Your task to perform on an android device: install app "DoorDash - Dasher" Image 0: 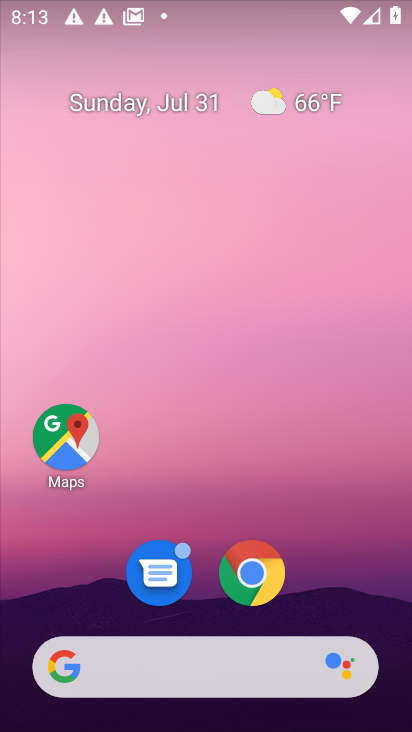
Step 0: drag from (217, 408) to (228, 6)
Your task to perform on an android device: install app "DoorDash - Dasher" Image 1: 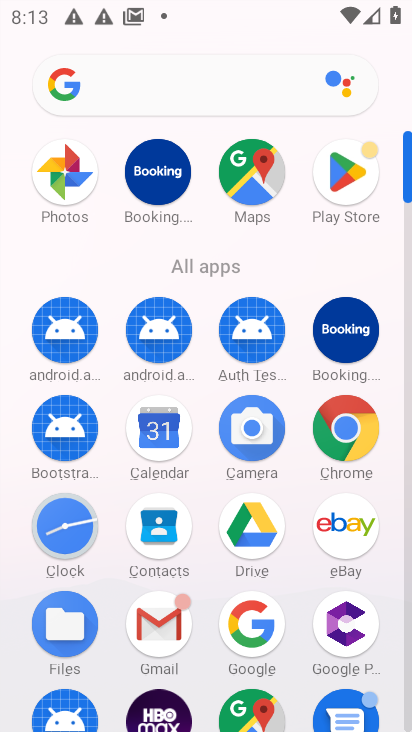
Step 1: click (360, 192)
Your task to perform on an android device: install app "DoorDash - Dasher" Image 2: 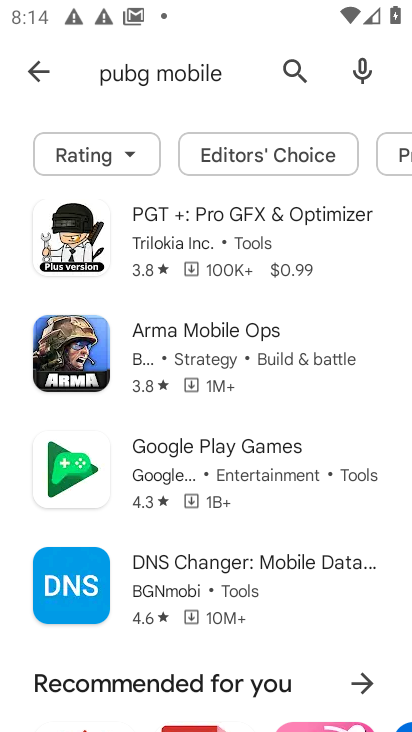
Step 2: click (163, 75)
Your task to perform on an android device: install app "DoorDash - Dasher" Image 3: 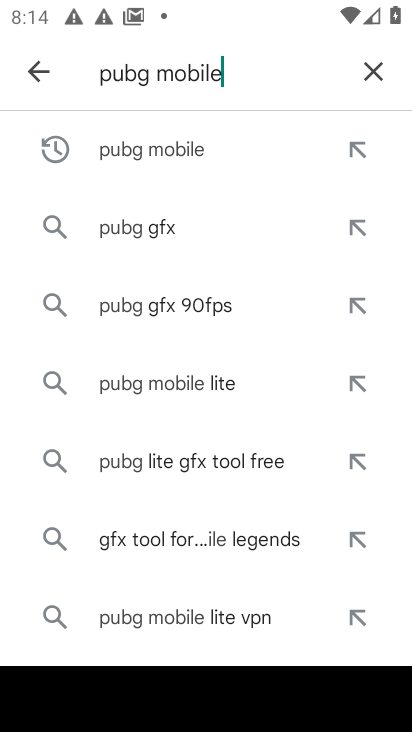
Step 3: click (367, 65)
Your task to perform on an android device: install app "DoorDash - Dasher" Image 4: 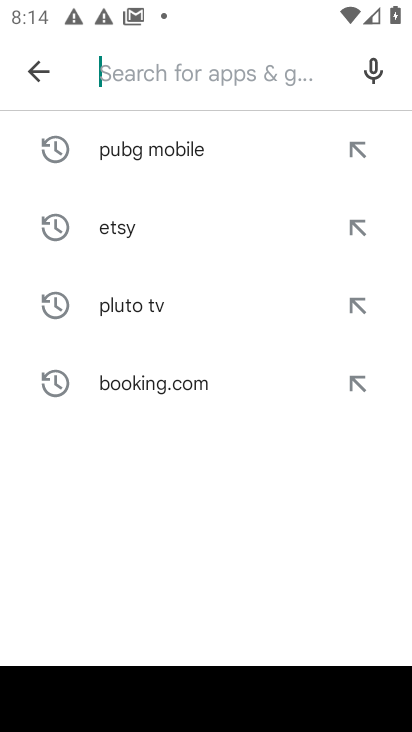
Step 4: type "DoorDash"
Your task to perform on an android device: install app "DoorDash - Dasher" Image 5: 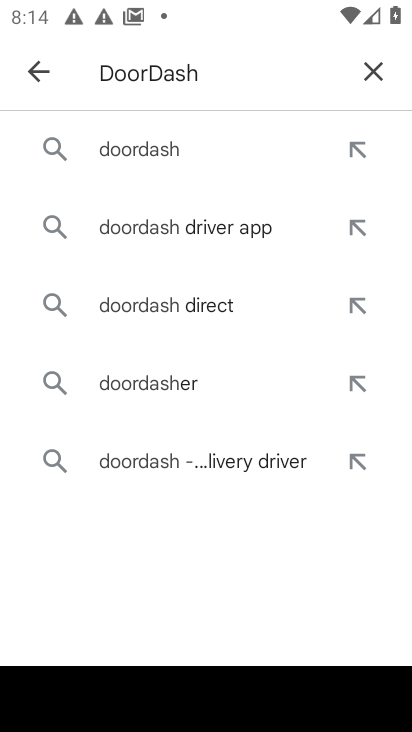
Step 5: click (178, 149)
Your task to perform on an android device: install app "DoorDash - Dasher" Image 6: 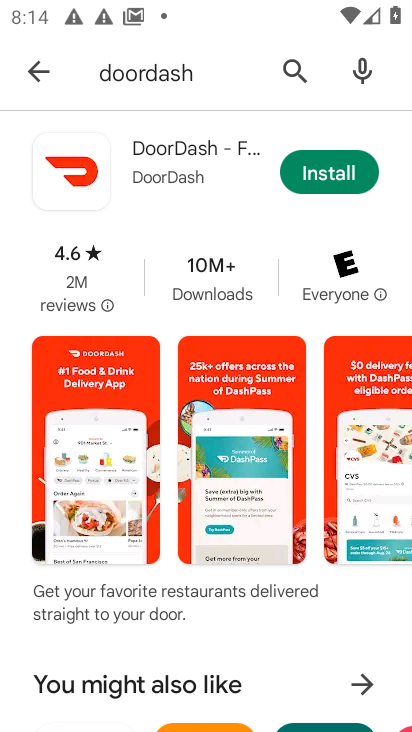
Step 6: click (345, 172)
Your task to perform on an android device: install app "DoorDash - Dasher" Image 7: 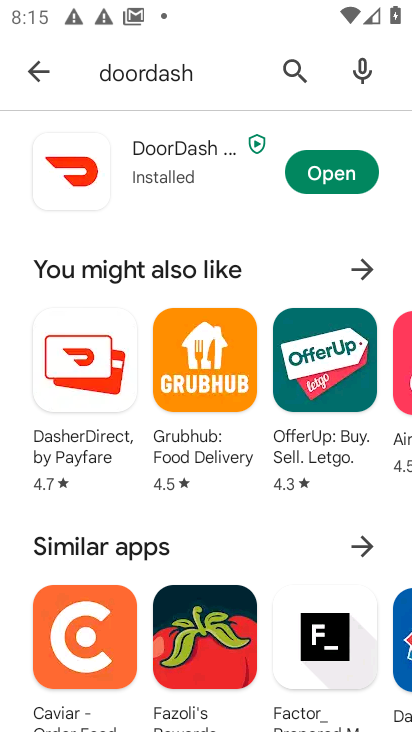
Step 7: task complete